Your task to perform on an android device: search for starred emails in the gmail app Image 0: 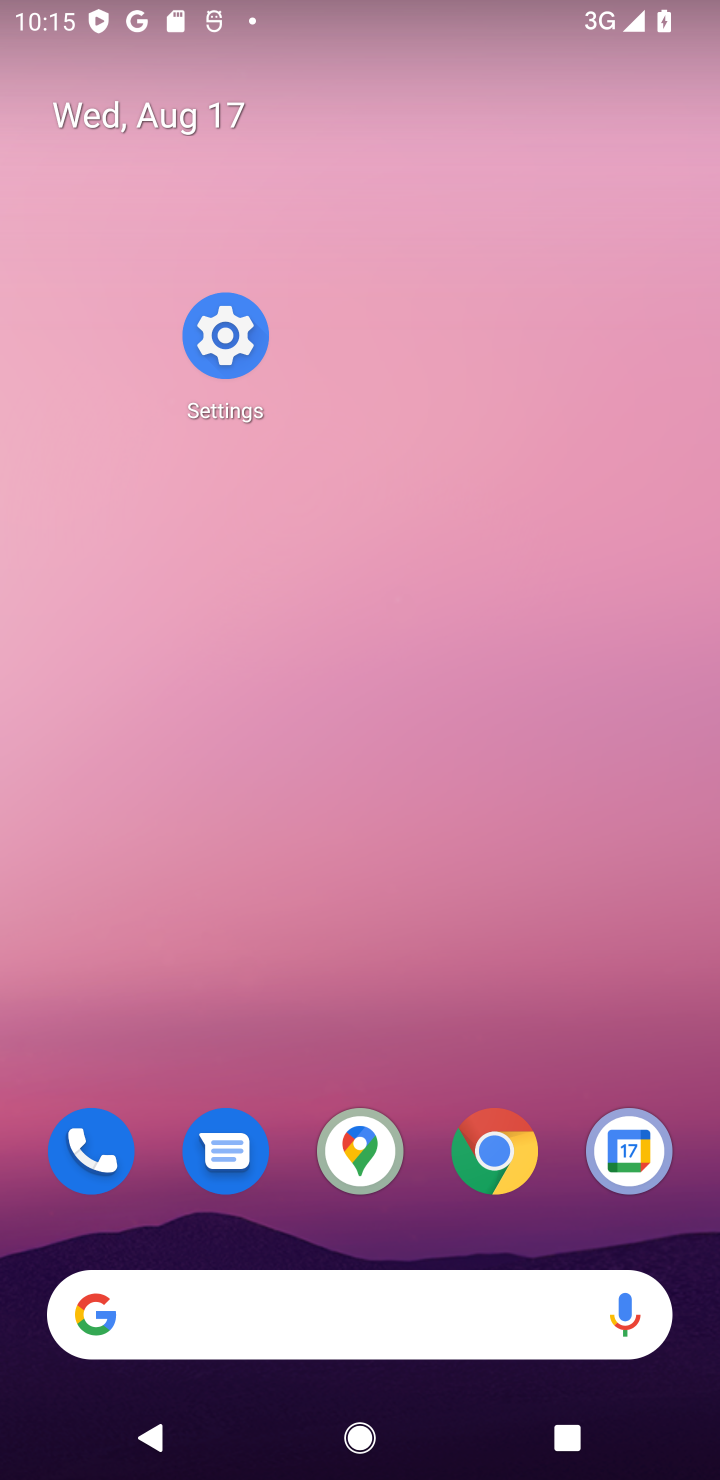
Step 0: click (311, 84)
Your task to perform on an android device: search for starred emails in the gmail app Image 1: 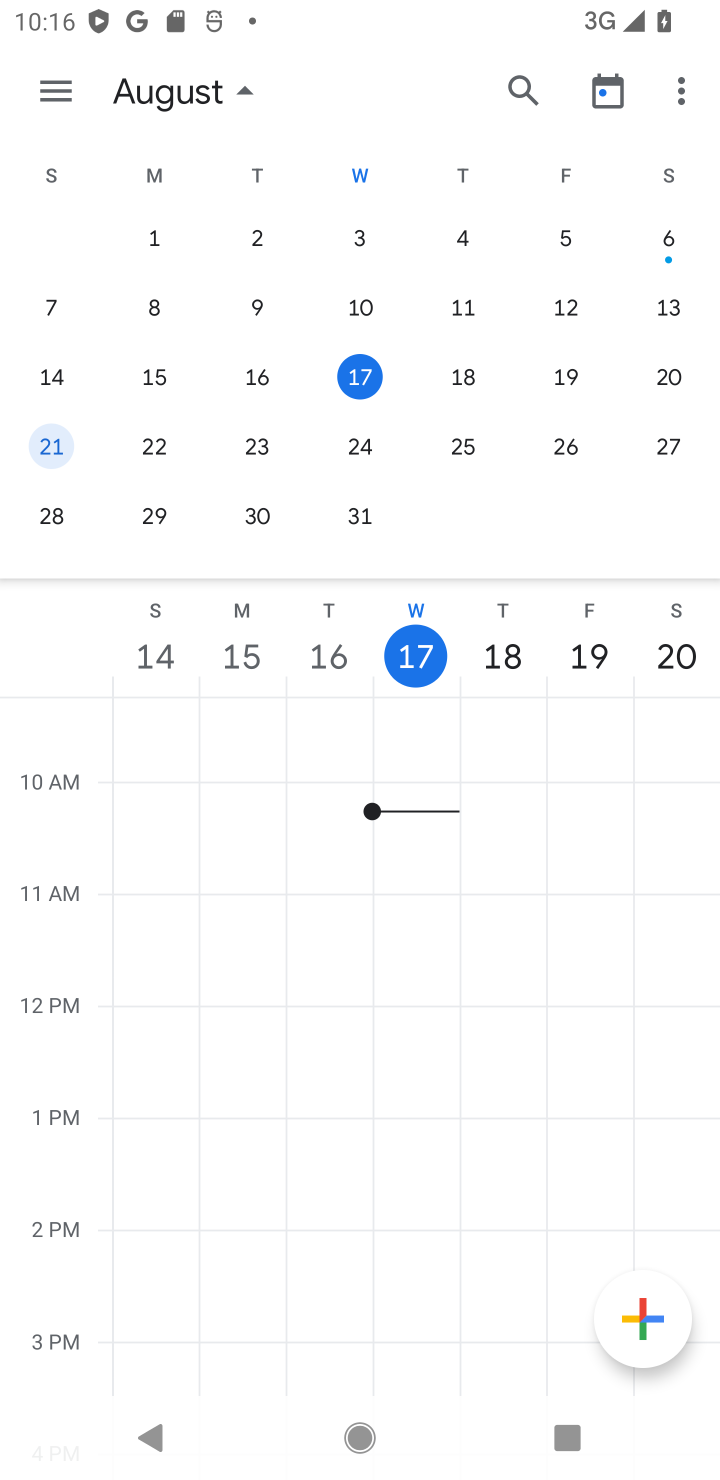
Step 1: click (294, 151)
Your task to perform on an android device: search for starred emails in the gmail app Image 2: 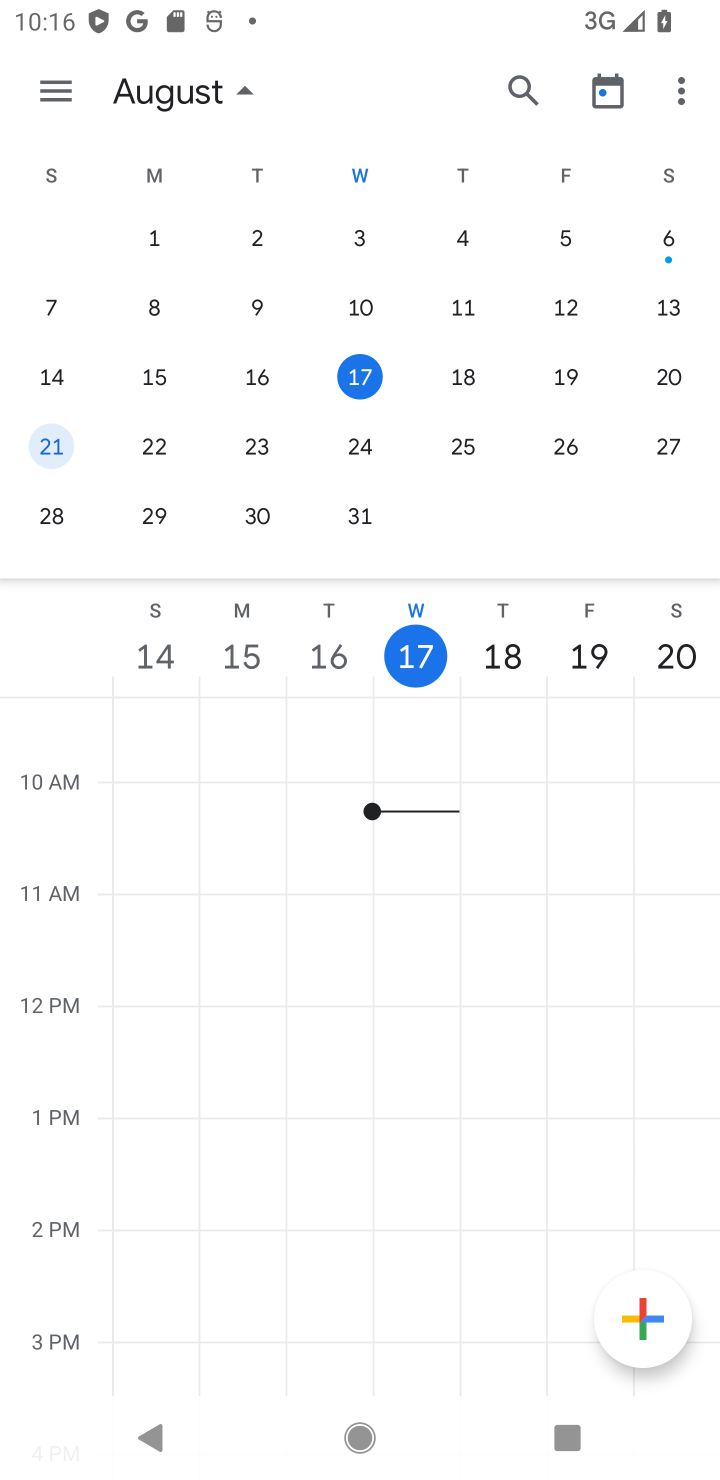
Step 2: click (294, 127)
Your task to perform on an android device: search for starred emails in the gmail app Image 3: 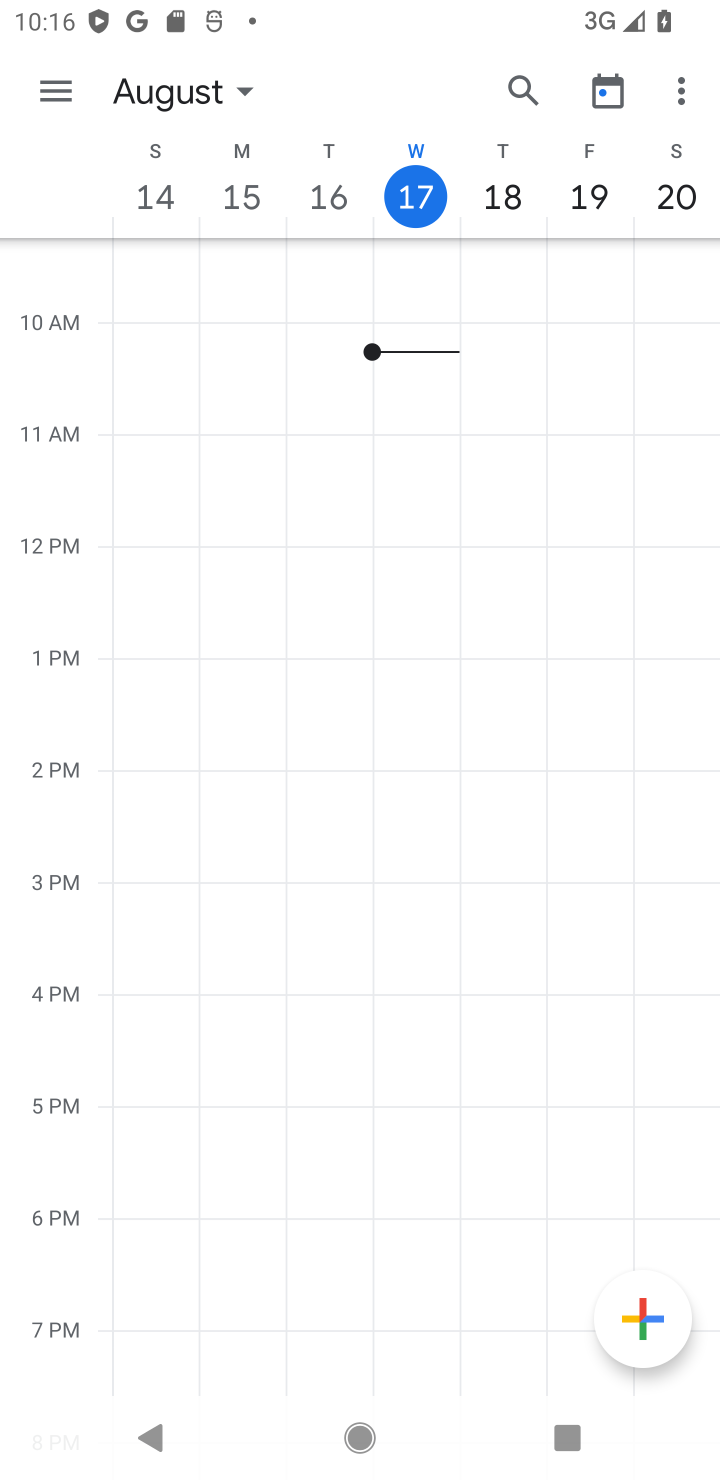
Step 3: press home button
Your task to perform on an android device: search for starred emails in the gmail app Image 4: 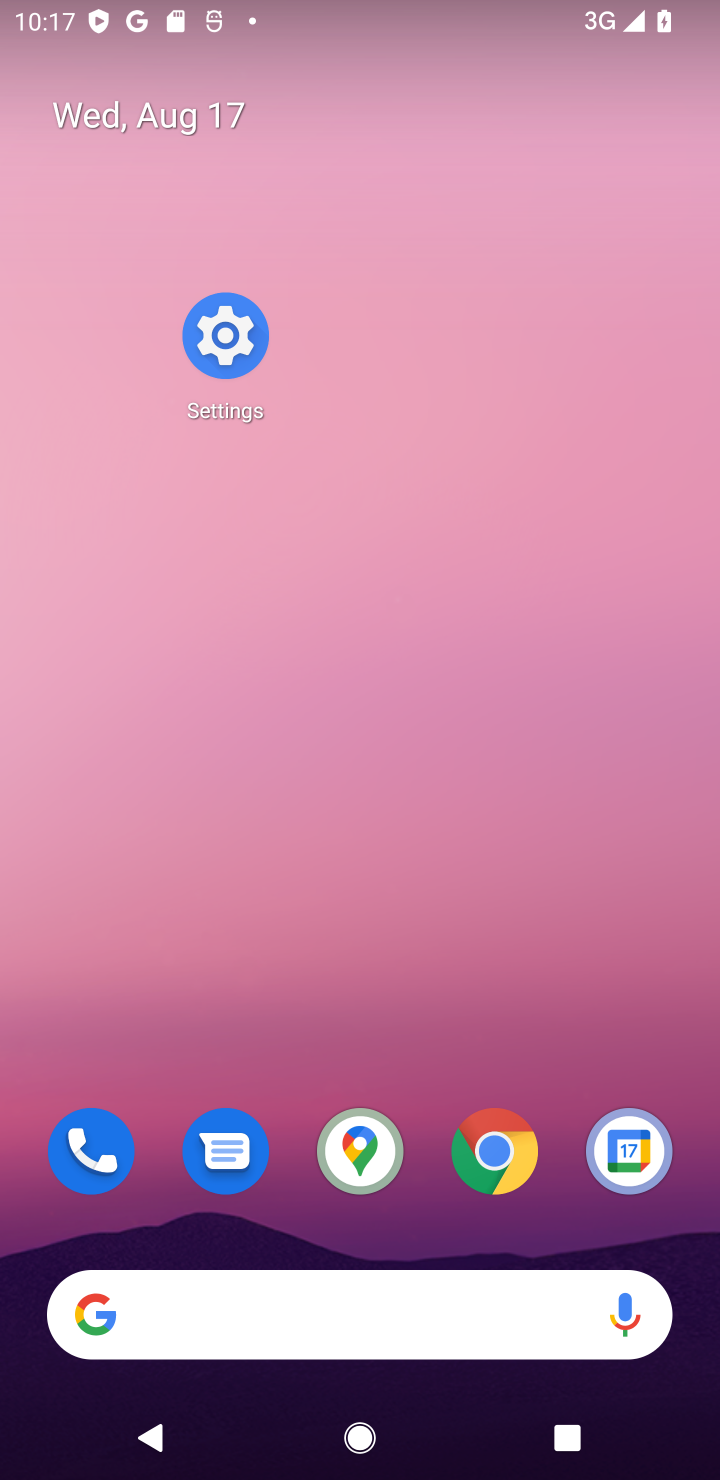
Step 4: click (348, 279)
Your task to perform on an android device: search for starred emails in the gmail app Image 5: 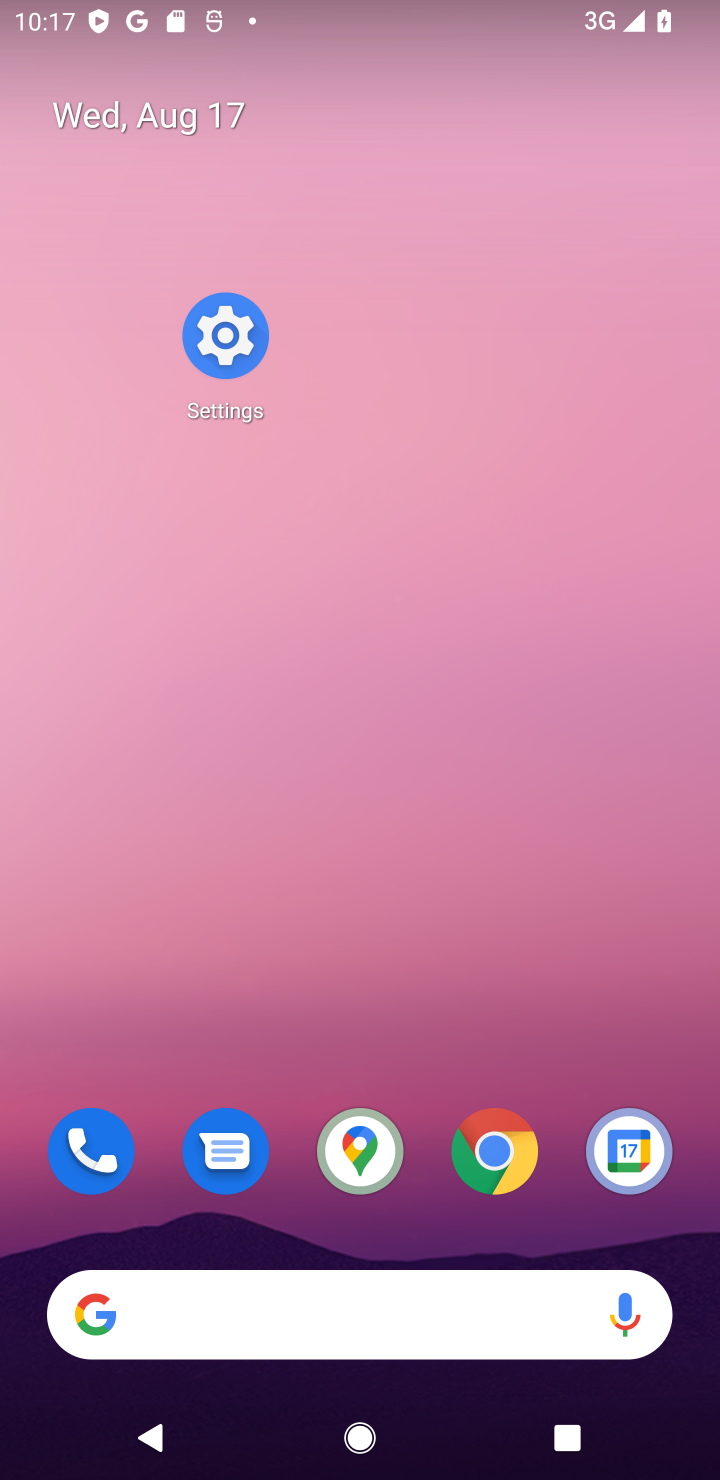
Step 5: drag from (387, 1162) to (336, 162)
Your task to perform on an android device: search for starred emails in the gmail app Image 6: 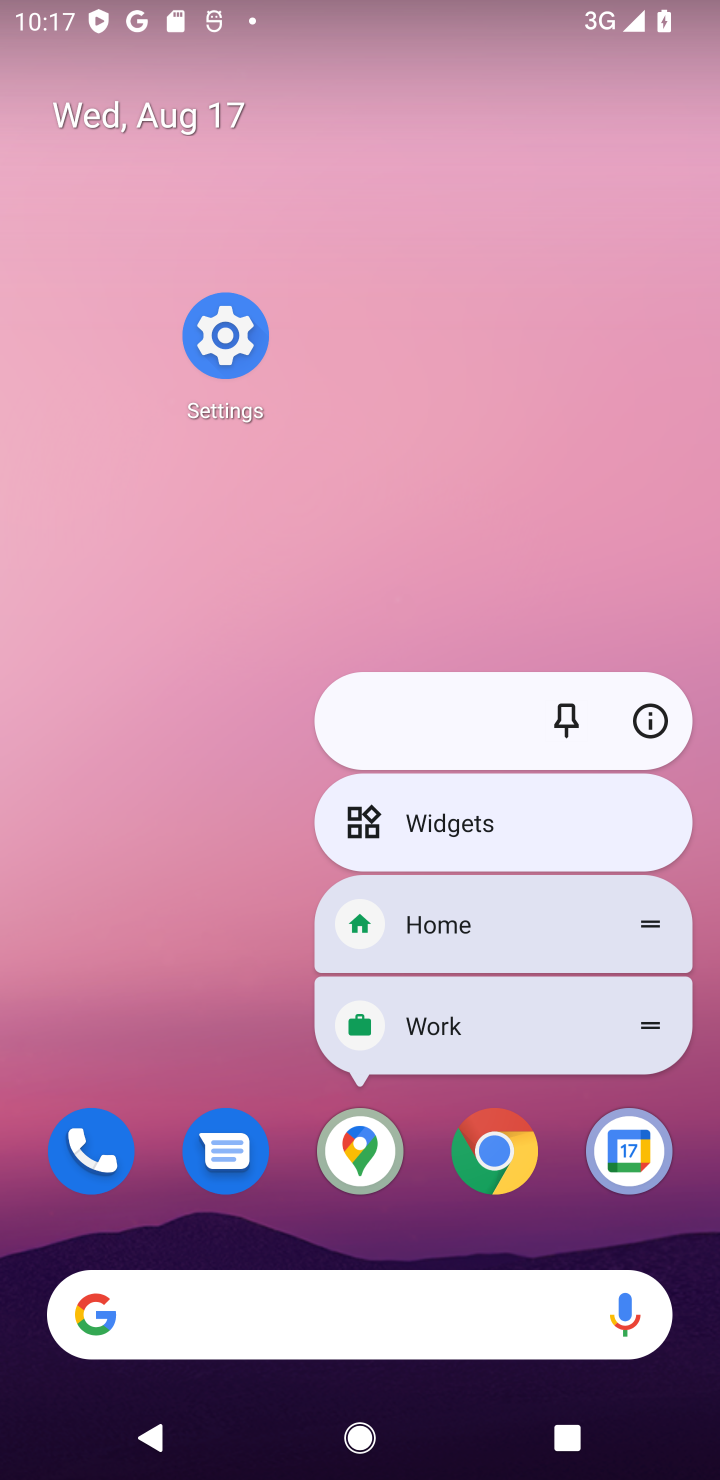
Step 6: drag from (325, 1206) to (331, 272)
Your task to perform on an android device: search for starred emails in the gmail app Image 7: 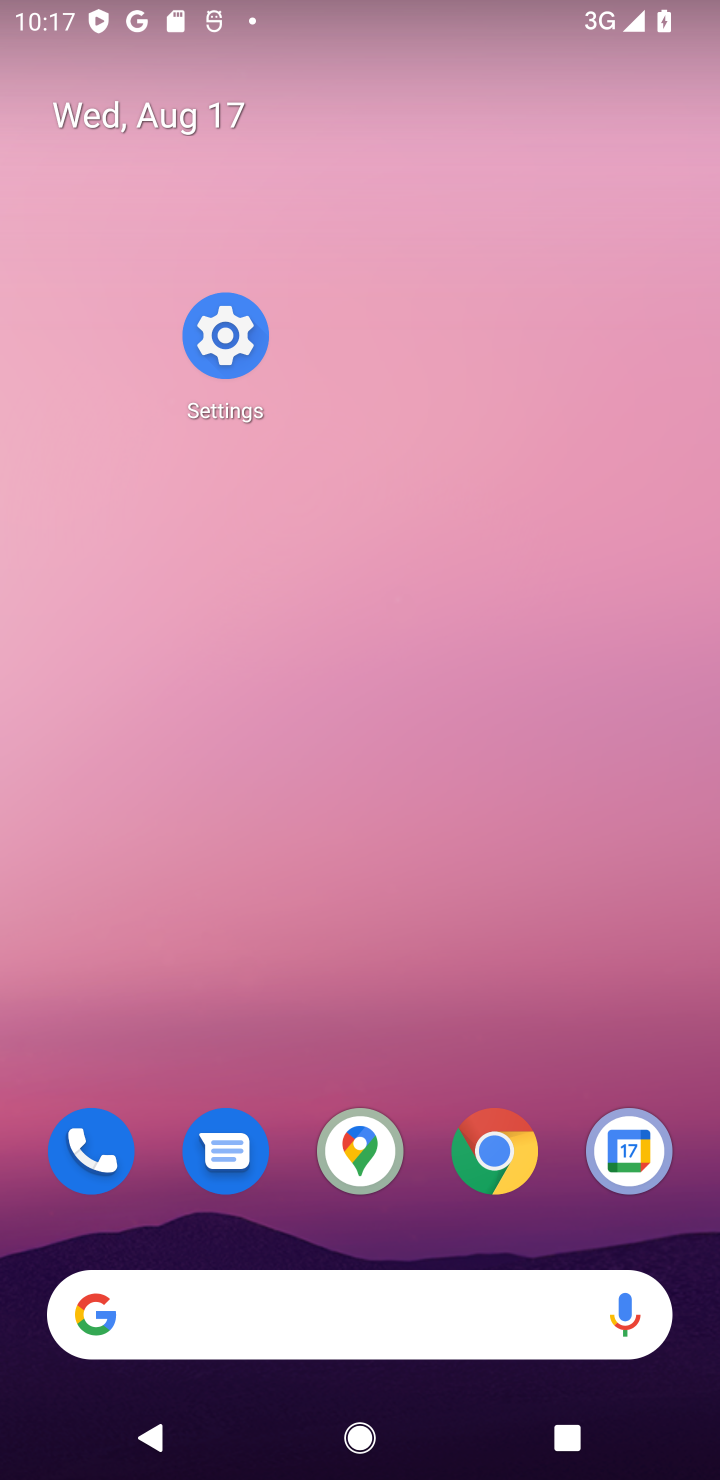
Step 7: drag from (285, 499) to (292, 56)
Your task to perform on an android device: search for starred emails in the gmail app Image 8: 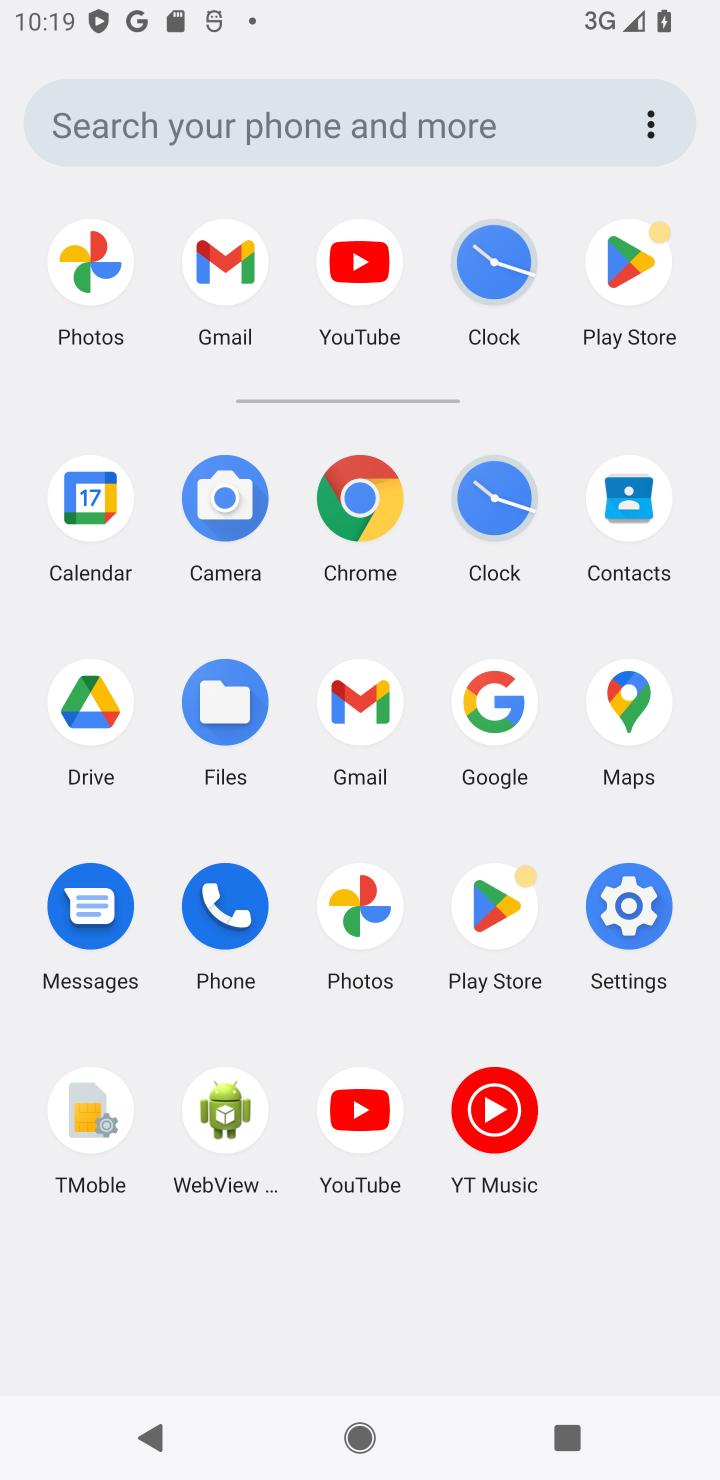
Step 8: click (355, 702)
Your task to perform on an android device: search for starred emails in the gmail app Image 9: 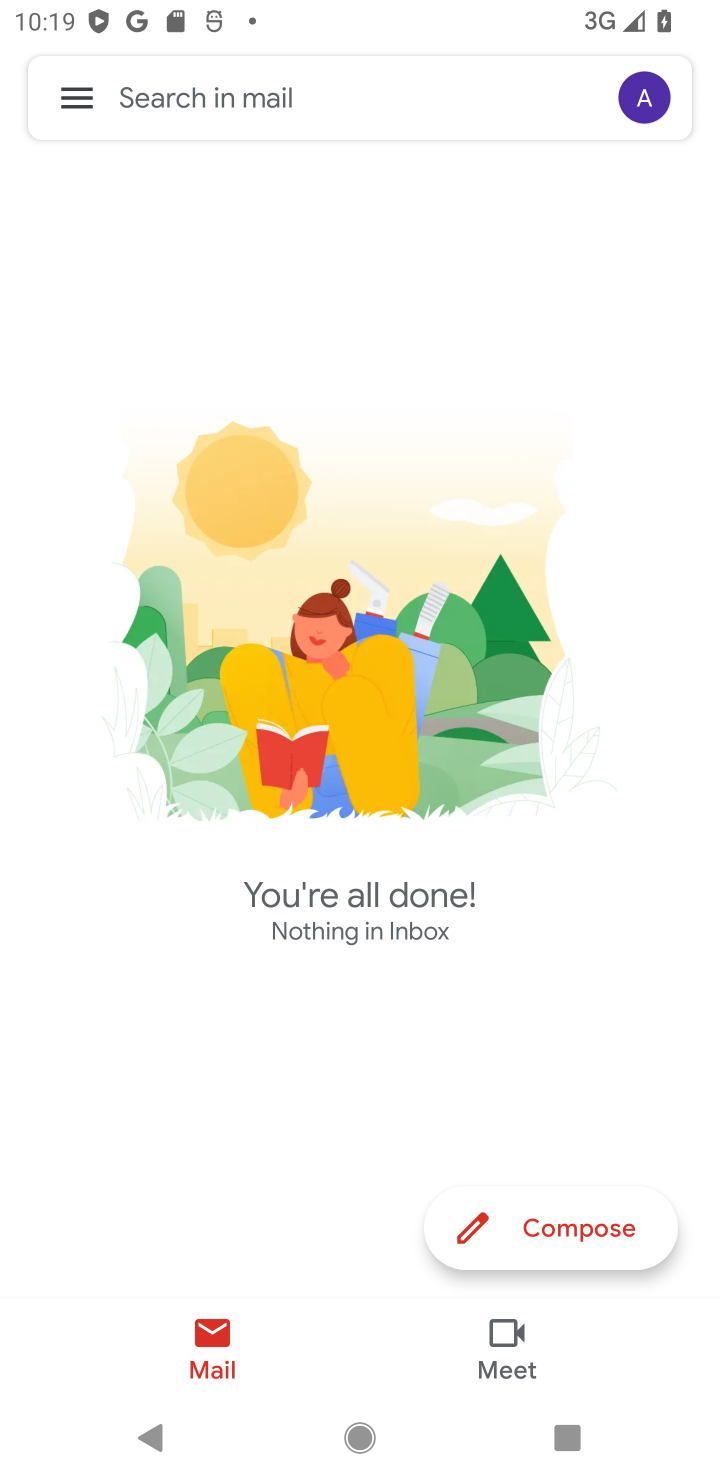
Step 9: click (68, 96)
Your task to perform on an android device: search for starred emails in the gmail app Image 10: 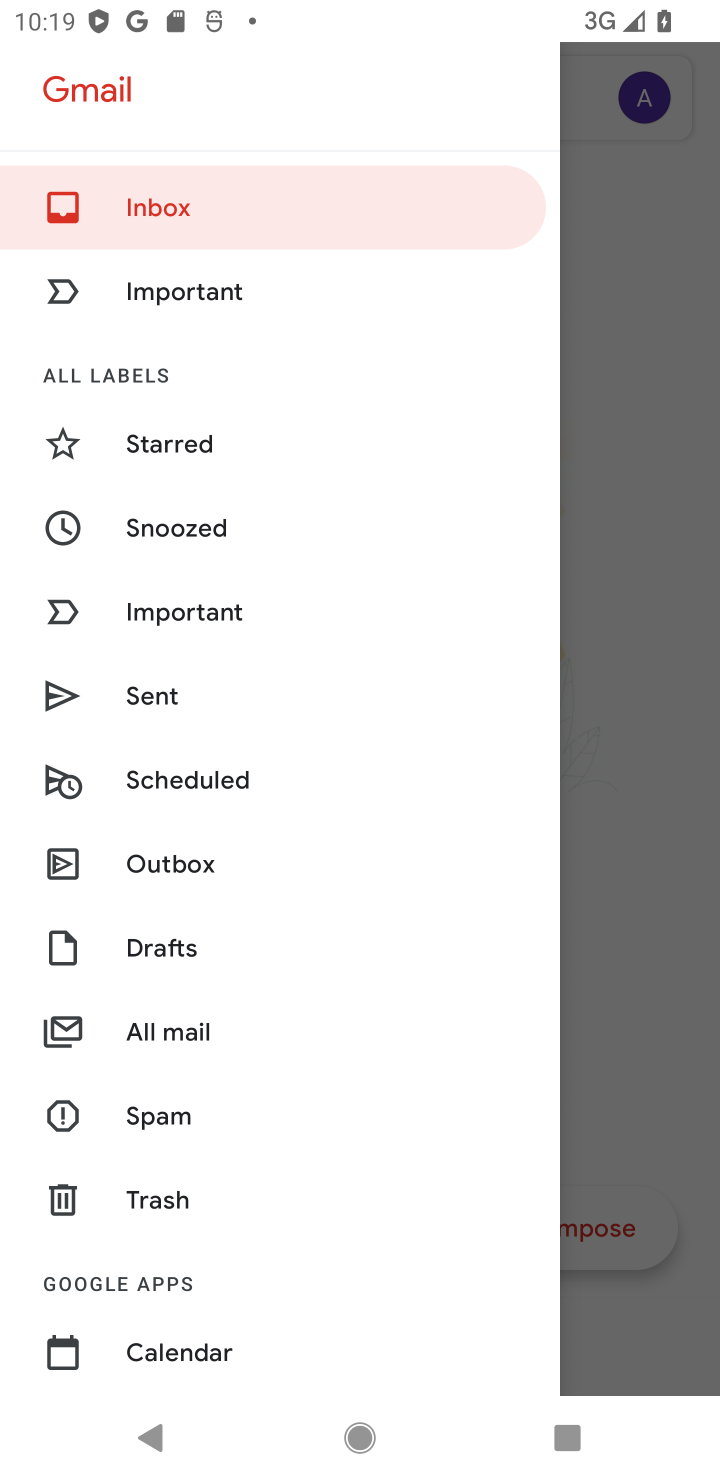
Step 10: click (184, 449)
Your task to perform on an android device: search for starred emails in the gmail app Image 11: 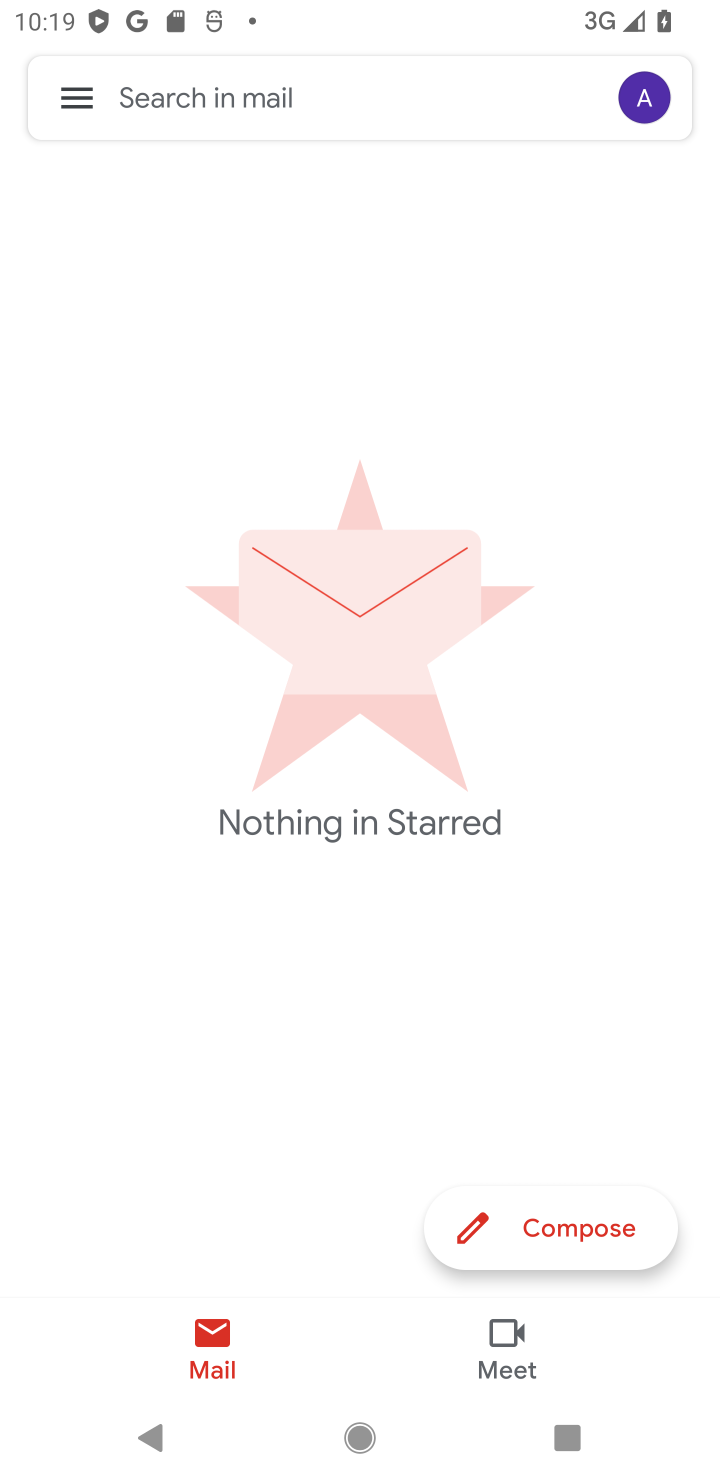
Step 11: task complete